Your task to perform on an android device: Search for pizza restaurants on Maps Image 0: 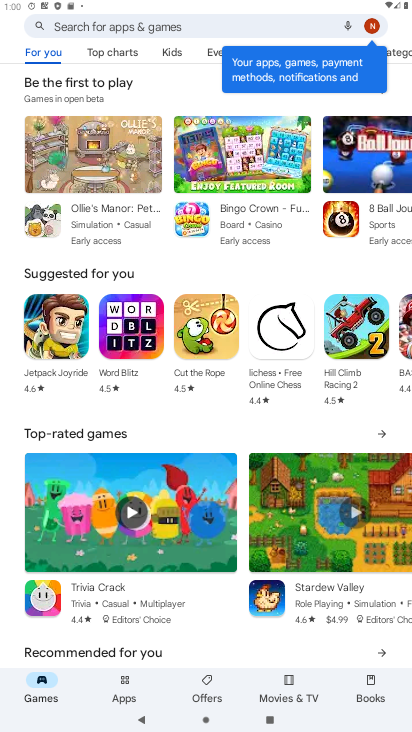
Step 0: press home button
Your task to perform on an android device: Search for pizza restaurants on Maps Image 1: 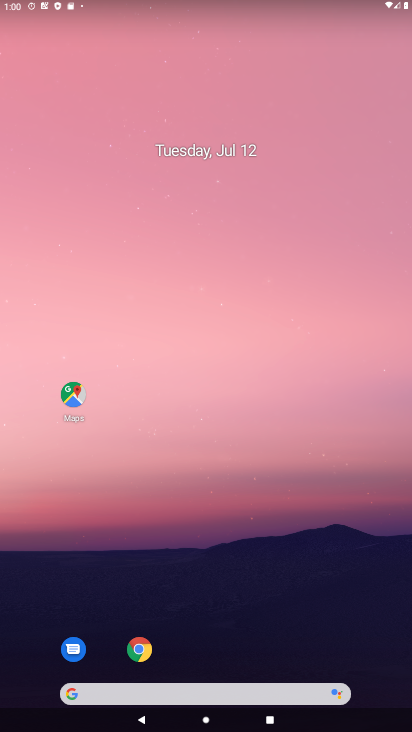
Step 1: drag from (385, 673) to (278, 5)
Your task to perform on an android device: Search for pizza restaurants on Maps Image 2: 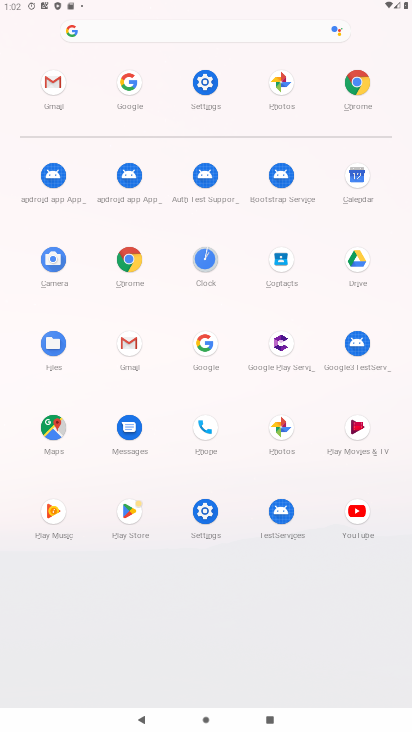
Step 2: click (55, 409)
Your task to perform on an android device: Search for pizza restaurants on Maps Image 3: 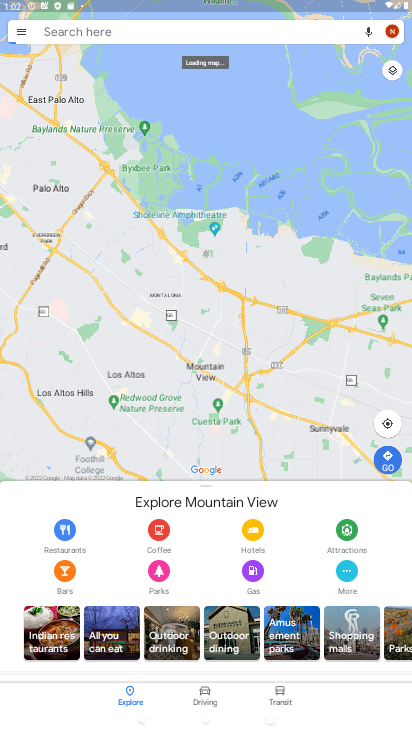
Step 3: click (100, 30)
Your task to perform on an android device: Search for pizza restaurants on Maps Image 4: 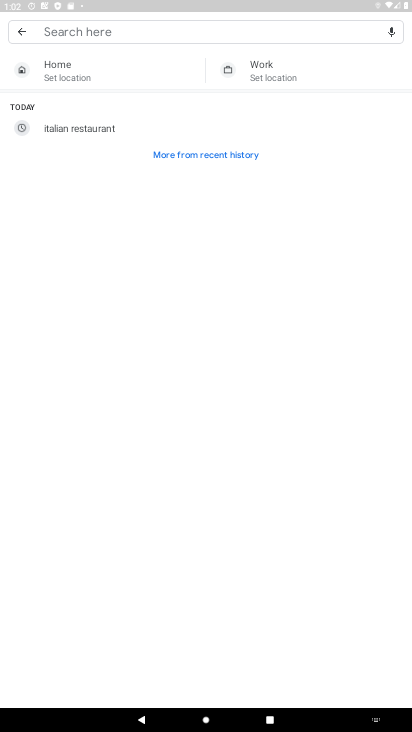
Step 4: type " pizza restaurants"
Your task to perform on an android device: Search for pizza restaurants on Maps Image 5: 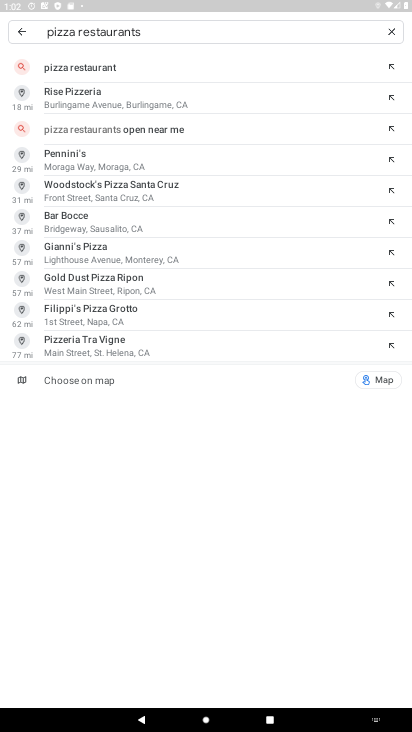
Step 5: click (104, 59)
Your task to perform on an android device: Search for pizza restaurants on Maps Image 6: 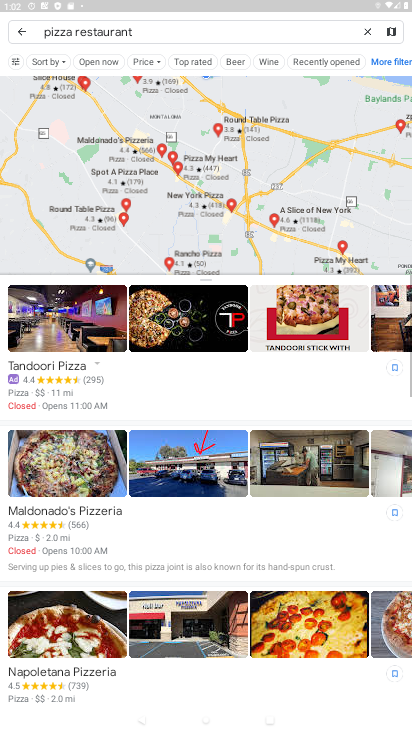
Step 6: task complete